Your task to perform on an android device: turn off priority inbox in the gmail app Image 0: 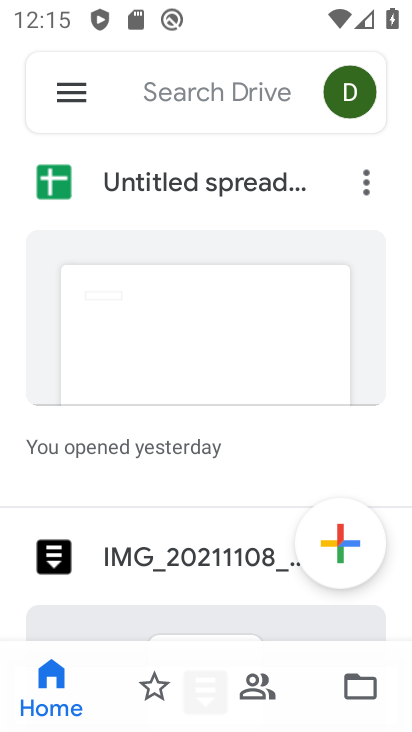
Step 0: press home button
Your task to perform on an android device: turn off priority inbox in the gmail app Image 1: 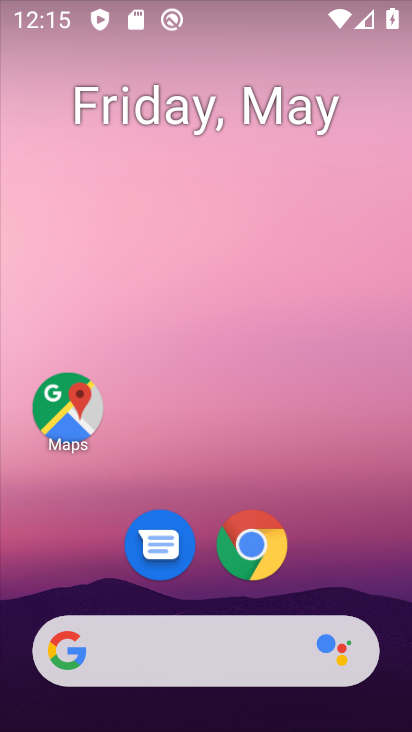
Step 1: drag from (322, 590) to (303, 150)
Your task to perform on an android device: turn off priority inbox in the gmail app Image 2: 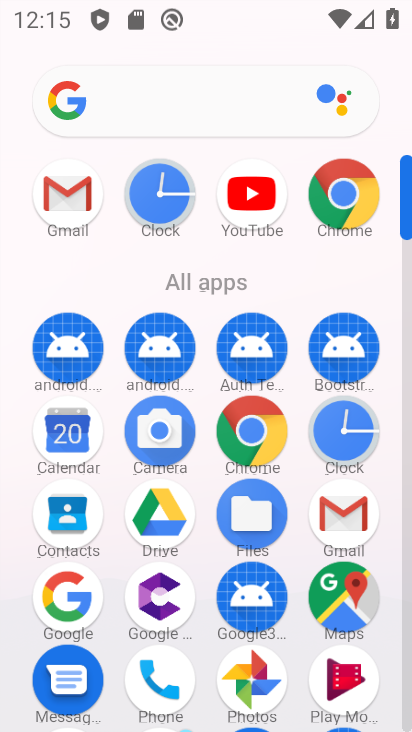
Step 2: click (63, 220)
Your task to perform on an android device: turn off priority inbox in the gmail app Image 3: 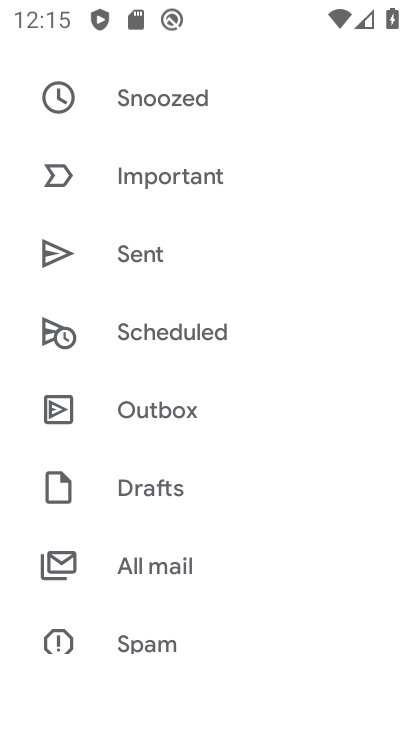
Step 3: drag from (274, 575) to (290, 315)
Your task to perform on an android device: turn off priority inbox in the gmail app Image 4: 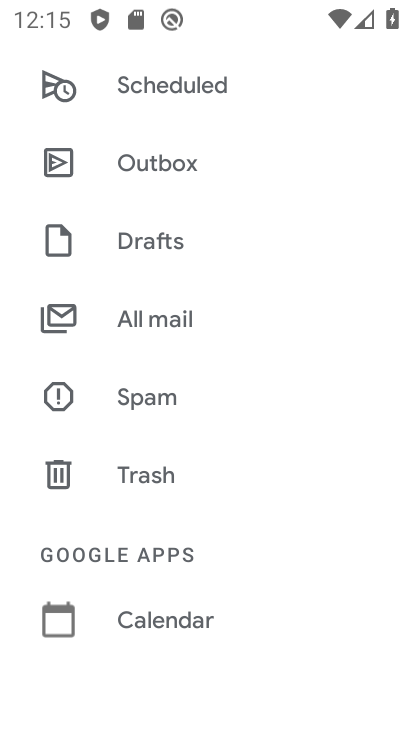
Step 4: drag from (245, 630) to (268, 250)
Your task to perform on an android device: turn off priority inbox in the gmail app Image 5: 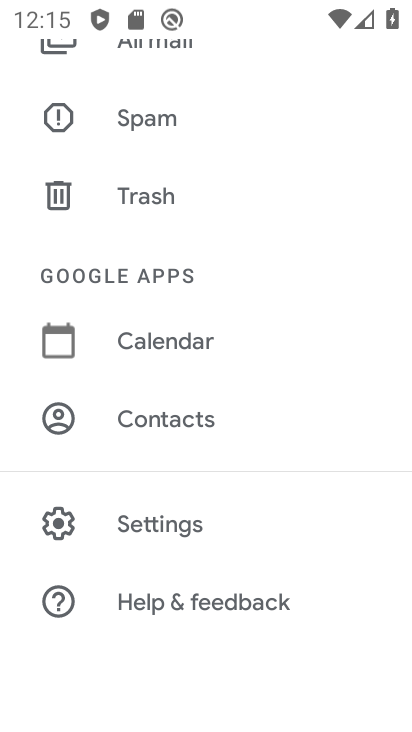
Step 5: click (205, 523)
Your task to perform on an android device: turn off priority inbox in the gmail app Image 6: 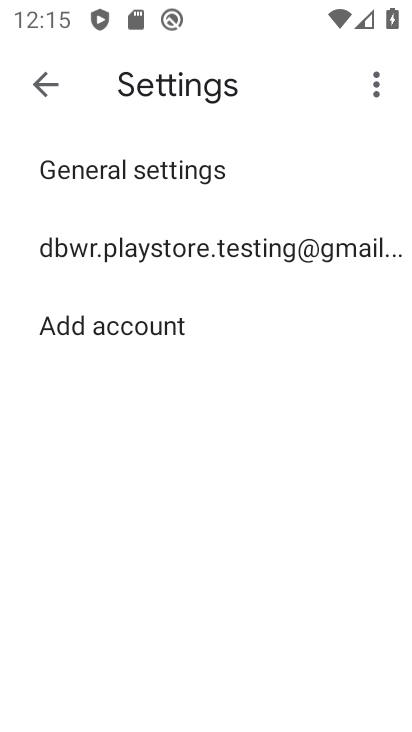
Step 6: click (376, 85)
Your task to perform on an android device: turn off priority inbox in the gmail app Image 7: 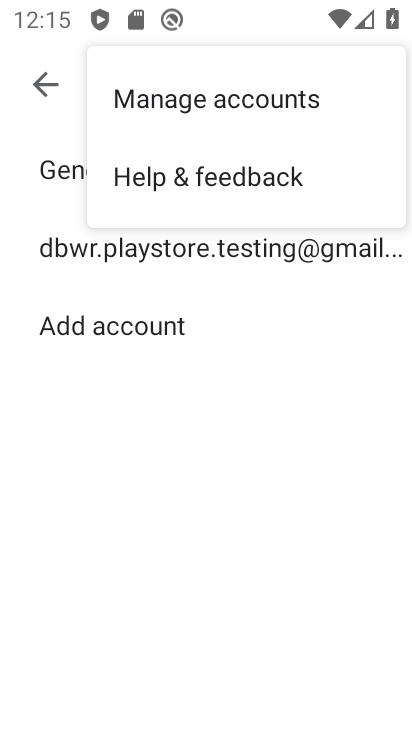
Step 7: task complete